Your task to perform on an android device: Open Wikipedia Image 0: 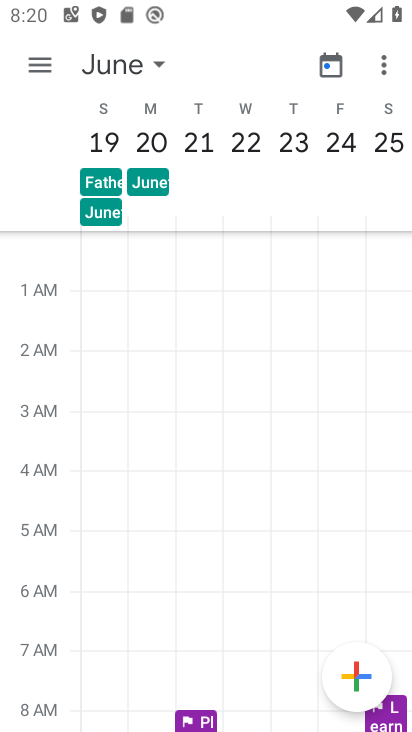
Step 0: press home button
Your task to perform on an android device: Open Wikipedia Image 1: 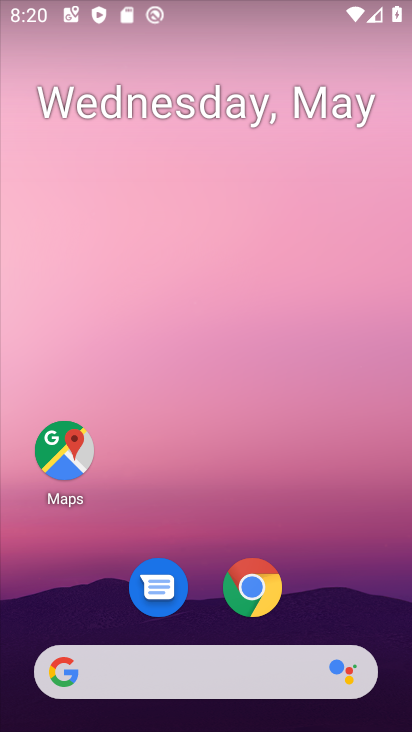
Step 1: click (251, 588)
Your task to perform on an android device: Open Wikipedia Image 2: 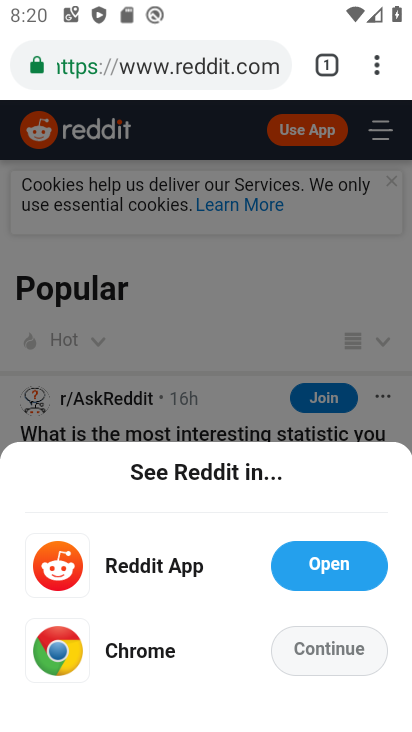
Step 2: click (253, 62)
Your task to perform on an android device: Open Wikipedia Image 3: 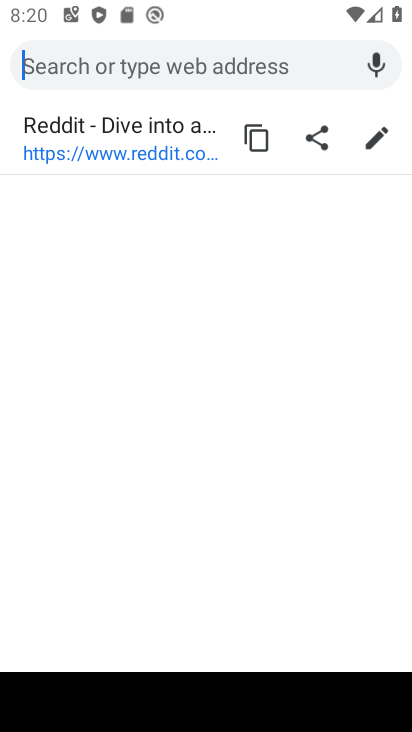
Step 3: type "wikipedia"
Your task to perform on an android device: Open Wikipedia Image 4: 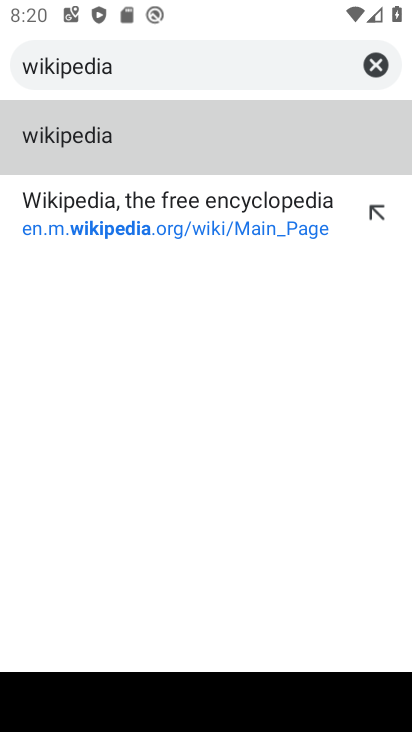
Step 4: click (92, 137)
Your task to perform on an android device: Open Wikipedia Image 5: 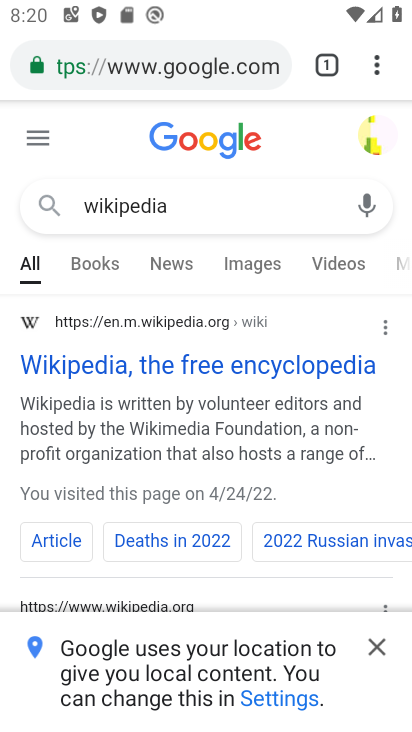
Step 5: click (378, 643)
Your task to perform on an android device: Open Wikipedia Image 6: 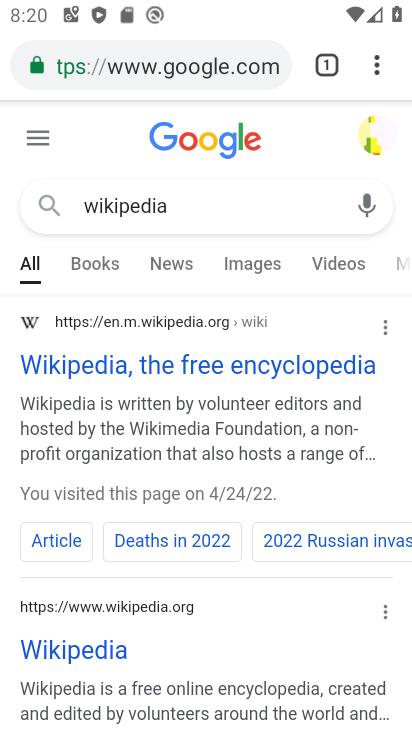
Step 6: click (100, 346)
Your task to perform on an android device: Open Wikipedia Image 7: 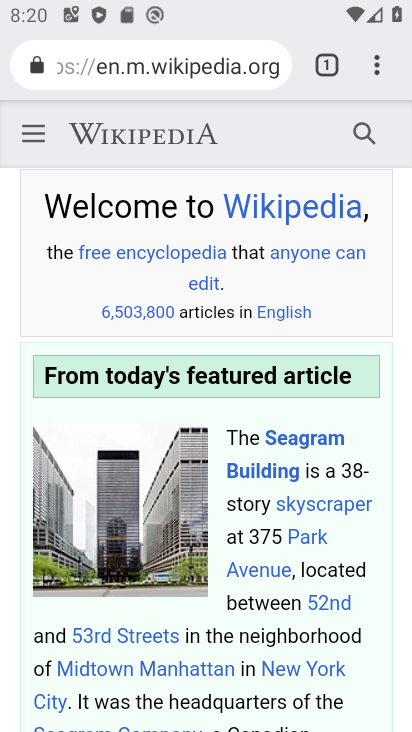
Step 7: task complete